Your task to perform on an android device: check data usage Image 0: 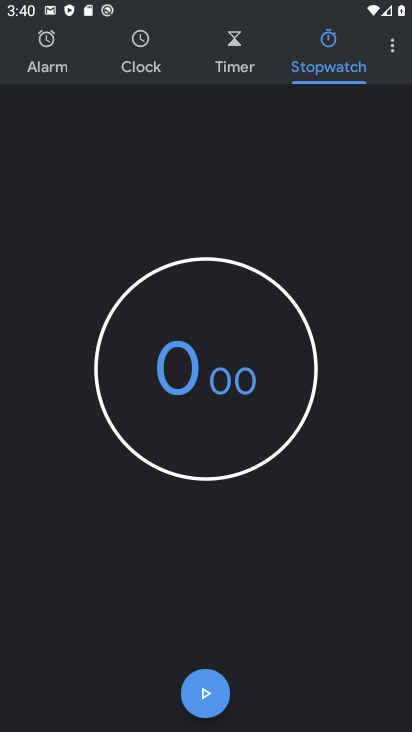
Step 0: drag from (245, 724) to (167, 155)
Your task to perform on an android device: check data usage Image 1: 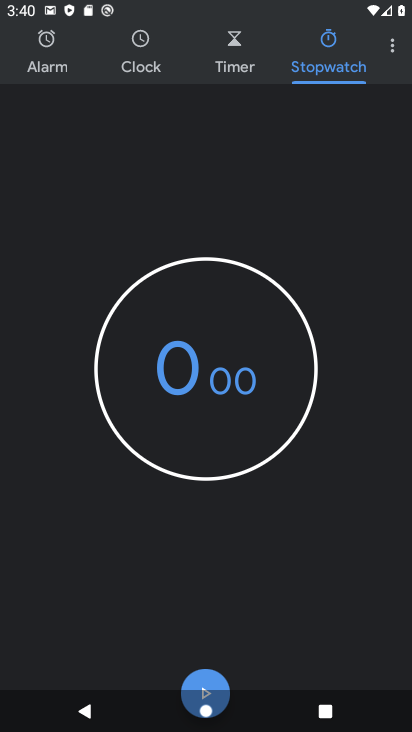
Step 1: drag from (227, 454) to (164, 114)
Your task to perform on an android device: check data usage Image 2: 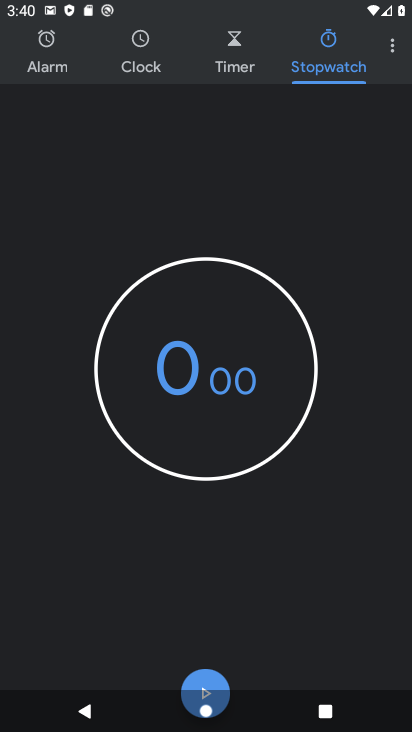
Step 2: drag from (221, 356) to (168, 40)
Your task to perform on an android device: check data usage Image 3: 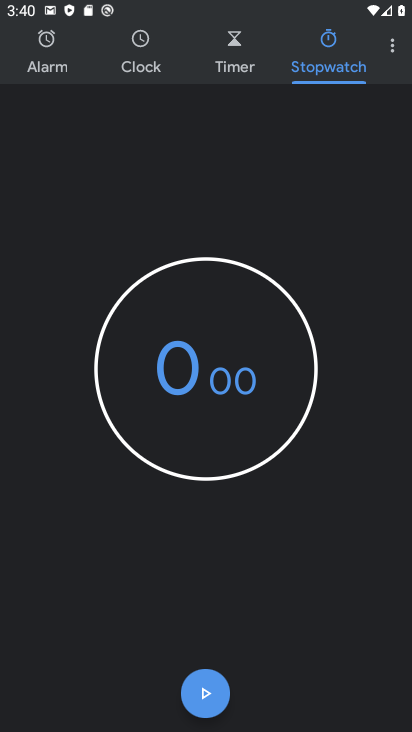
Step 3: drag from (250, 567) to (200, 242)
Your task to perform on an android device: check data usage Image 4: 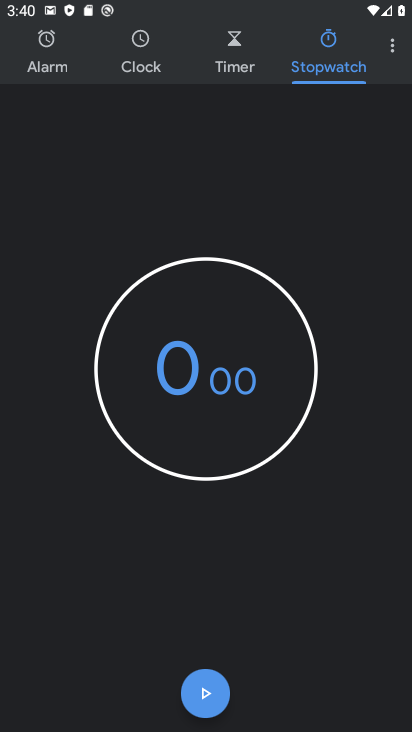
Step 4: drag from (216, 485) to (191, 165)
Your task to perform on an android device: check data usage Image 5: 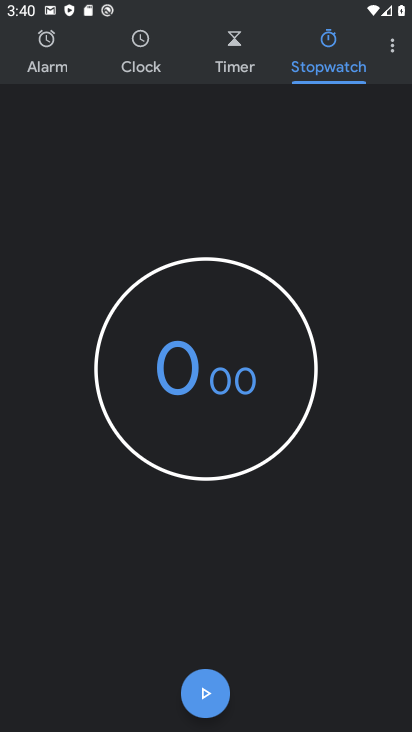
Step 5: drag from (284, 508) to (216, 213)
Your task to perform on an android device: check data usage Image 6: 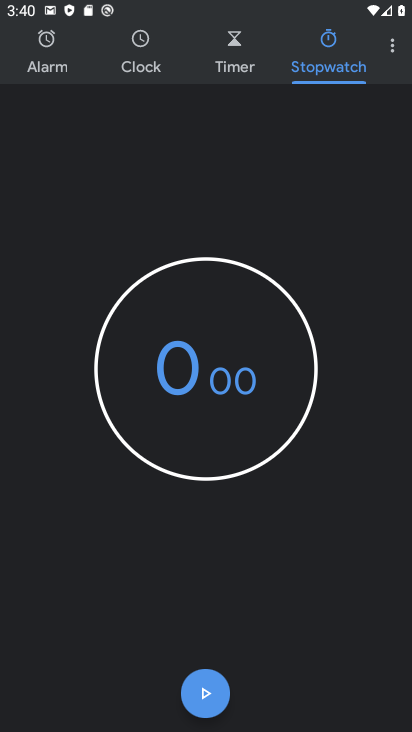
Step 6: drag from (167, 349) to (101, 99)
Your task to perform on an android device: check data usage Image 7: 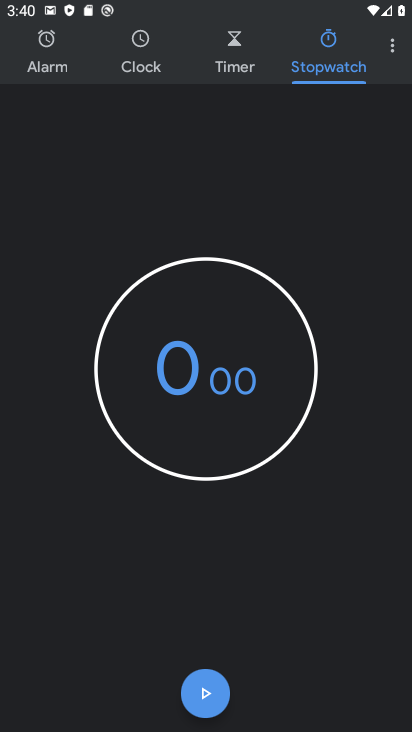
Step 7: drag from (245, 347) to (189, 87)
Your task to perform on an android device: check data usage Image 8: 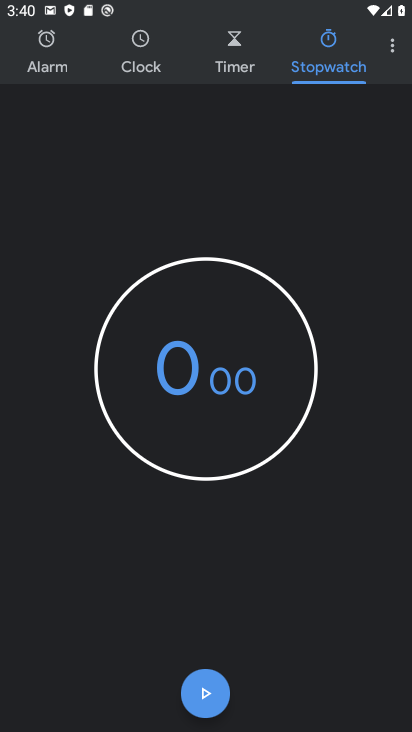
Step 8: drag from (244, 437) to (202, 130)
Your task to perform on an android device: check data usage Image 9: 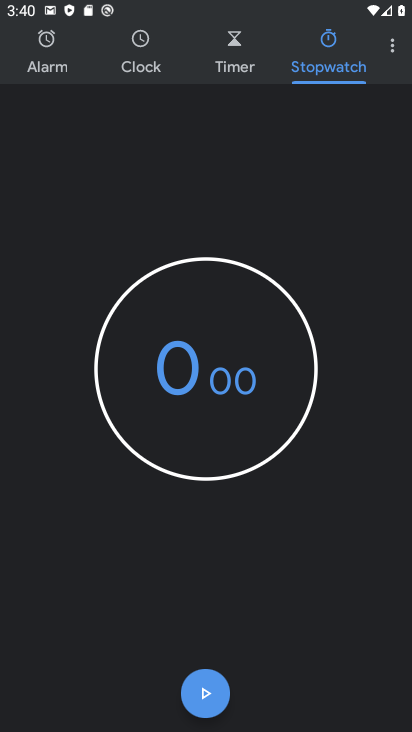
Step 9: drag from (196, 459) to (173, 174)
Your task to perform on an android device: check data usage Image 10: 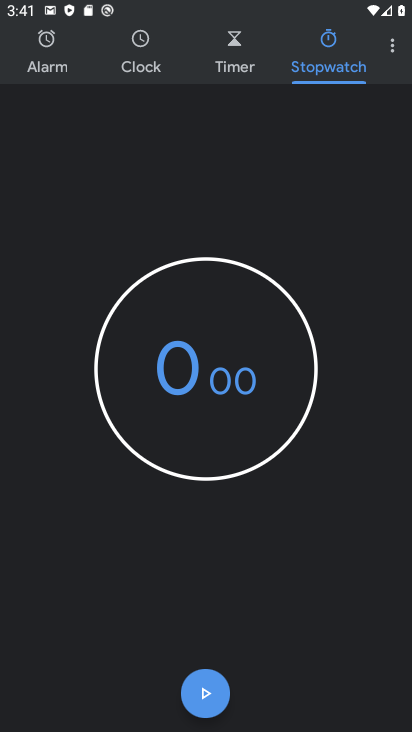
Step 10: drag from (265, 641) to (180, 235)
Your task to perform on an android device: check data usage Image 11: 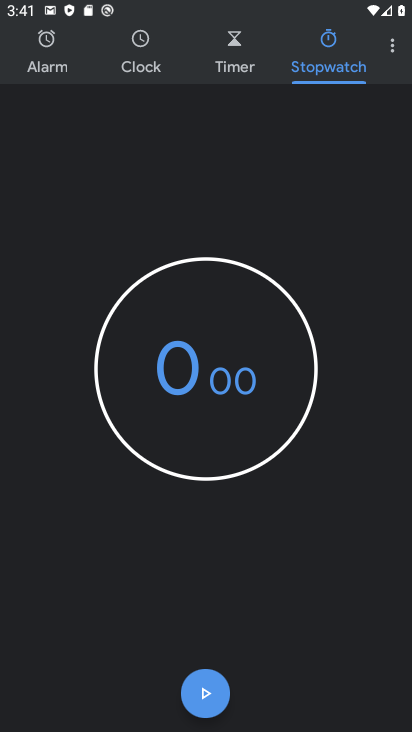
Step 11: press back button
Your task to perform on an android device: check data usage Image 12: 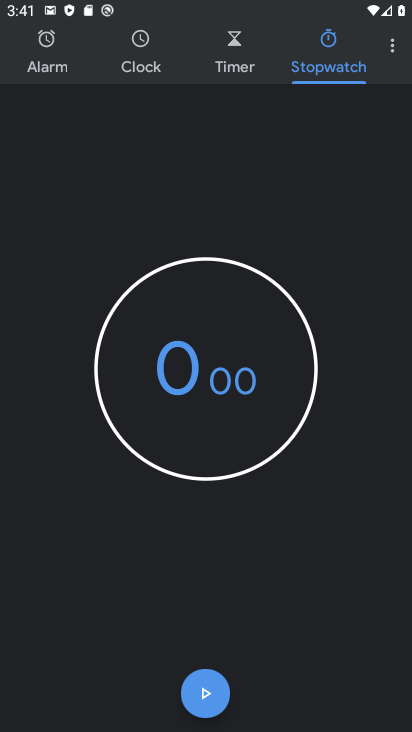
Step 12: press back button
Your task to perform on an android device: check data usage Image 13: 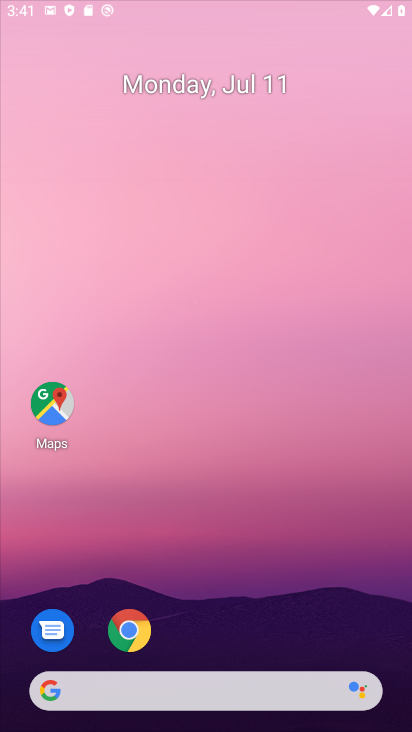
Step 13: press back button
Your task to perform on an android device: check data usage Image 14: 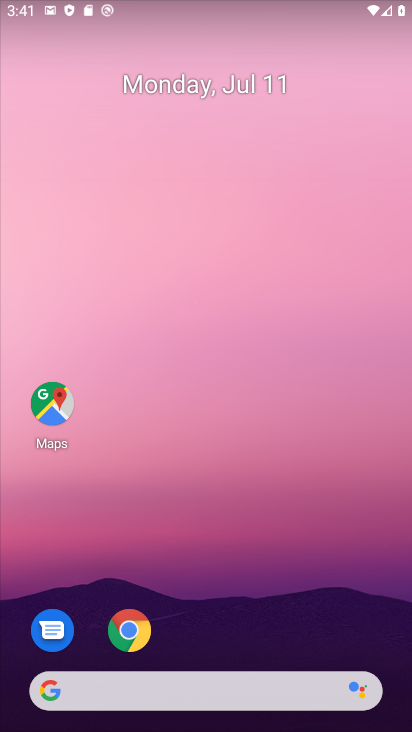
Step 14: press back button
Your task to perform on an android device: check data usage Image 15: 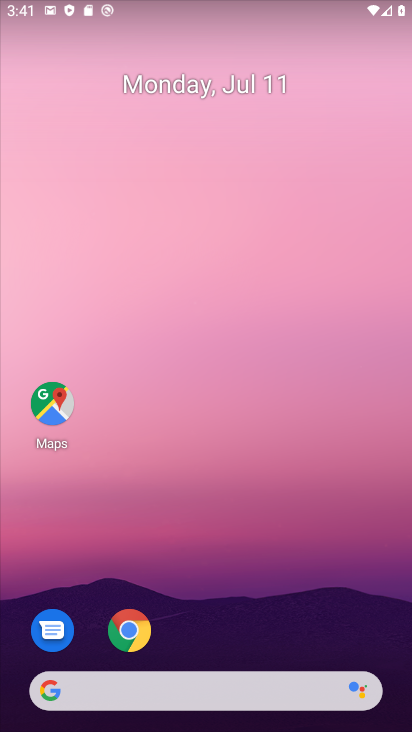
Step 15: drag from (204, 400) to (143, 161)
Your task to perform on an android device: check data usage Image 16: 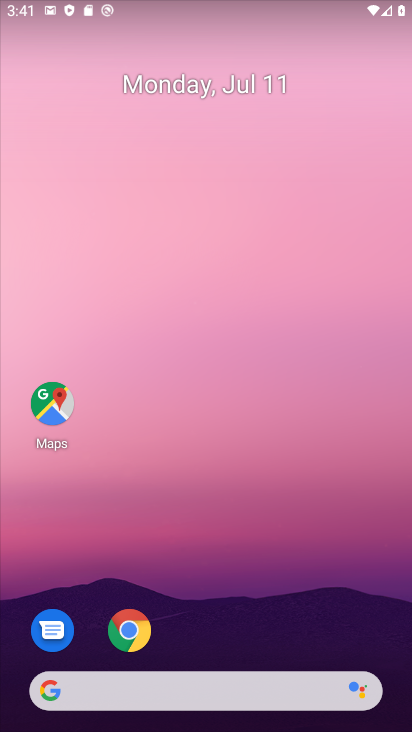
Step 16: drag from (167, 323) to (158, 247)
Your task to perform on an android device: check data usage Image 17: 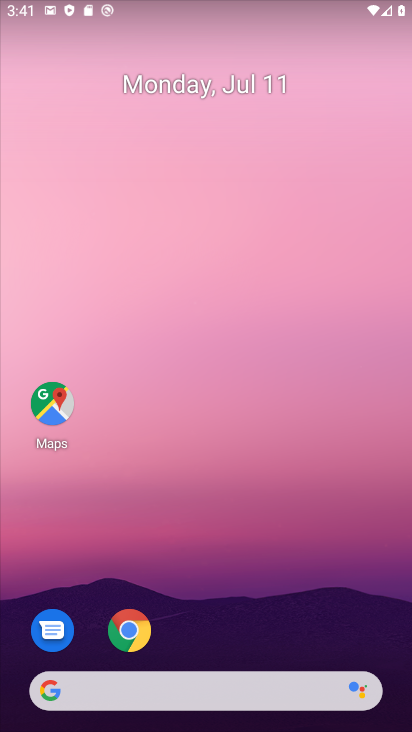
Step 17: drag from (264, 595) to (236, 250)
Your task to perform on an android device: check data usage Image 18: 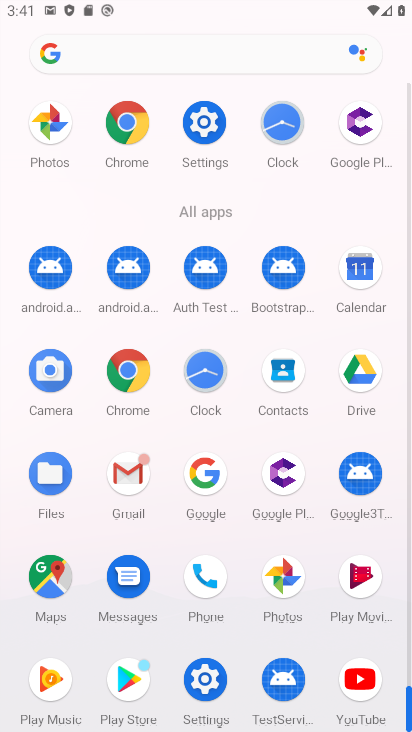
Step 18: click (202, 126)
Your task to perform on an android device: check data usage Image 19: 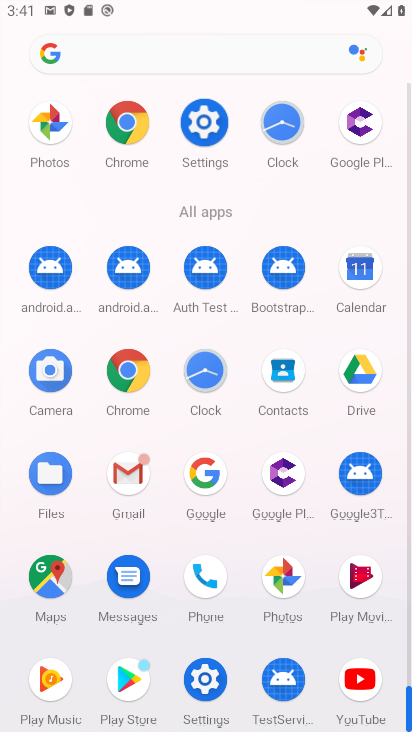
Step 19: click (201, 130)
Your task to perform on an android device: check data usage Image 20: 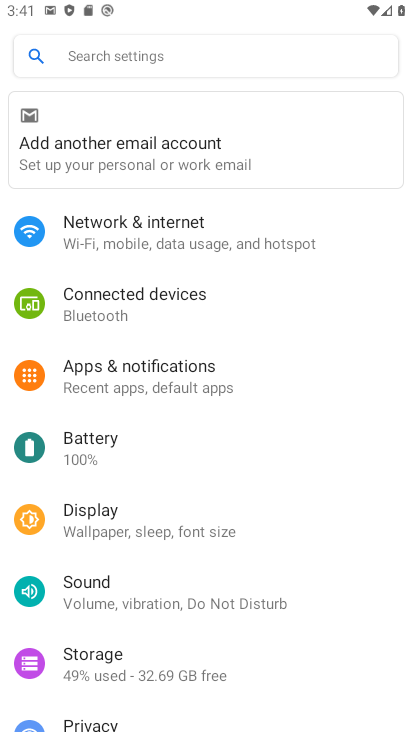
Step 20: click (138, 224)
Your task to perform on an android device: check data usage Image 21: 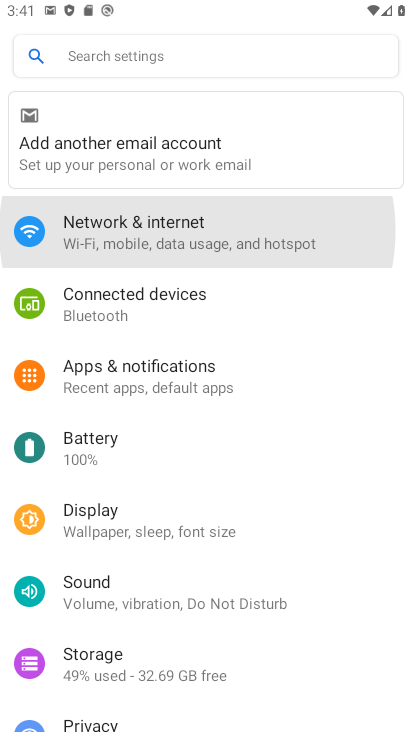
Step 21: click (137, 224)
Your task to perform on an android device: check data usage Image 22: 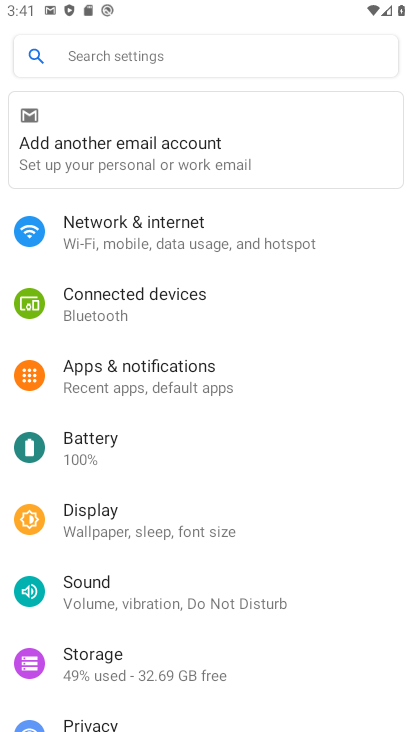
Step 22: click (137, 228)
Your task to perform on an android device: check data usage Image 23: 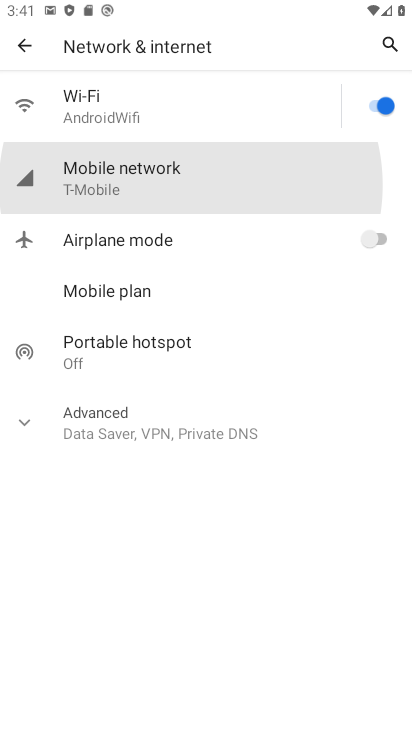
Step 23: click (137, 230)
Your task to perform on an android device: check data usage Image 24: 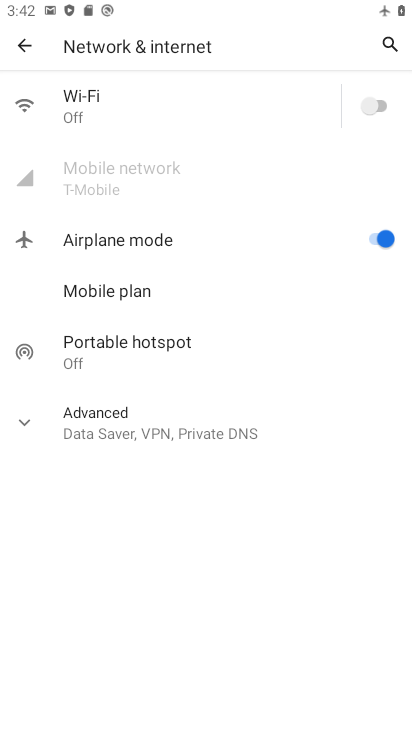
Step 24: click (362, 98)
Your task to perform on an android device: check data usage Image 25: 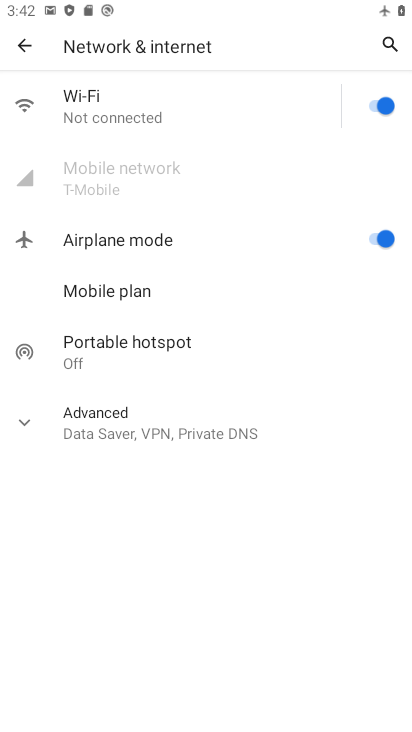
Step 25: task complete